Your task to perform on an android device: Do I have any events this weekend? Image 0: 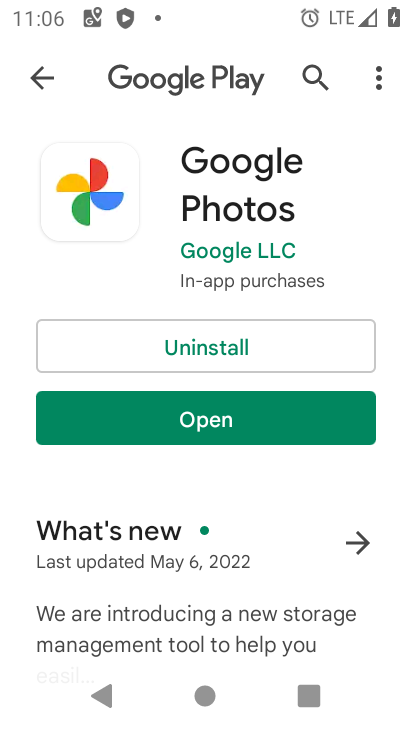
Step 0: press home button
Your task to perform on an android device: Do I have any events this weekend? Image 1: 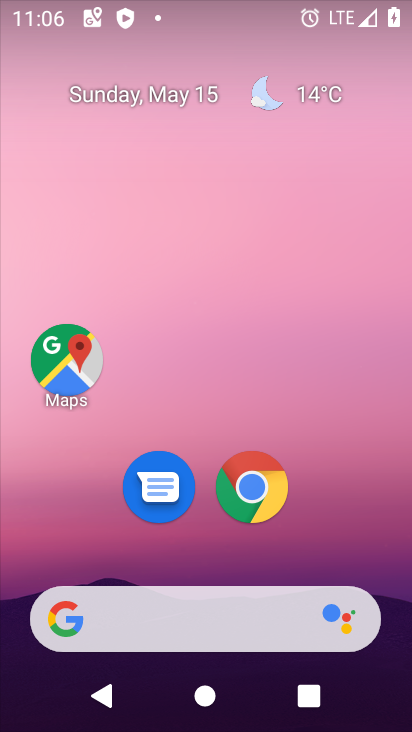
Step 1: drag from (391, 622) to (313, 72)
Your task to perform on an android device: Do I have any events this weekend? Image 2: 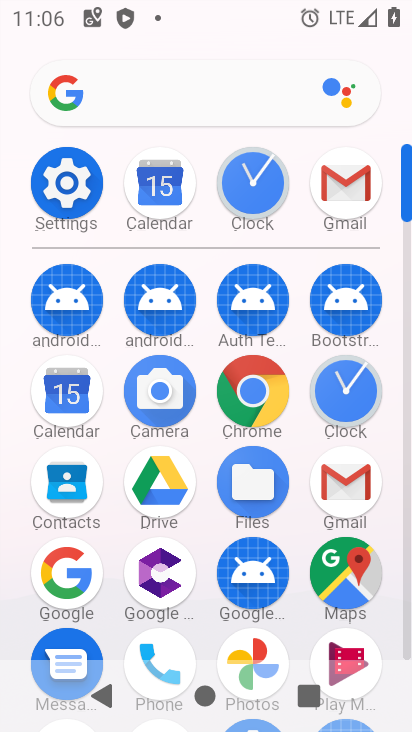
Step 2: click (409, 646)
Your task to perform on an android device: Do I have any events this weekend? Image 3: 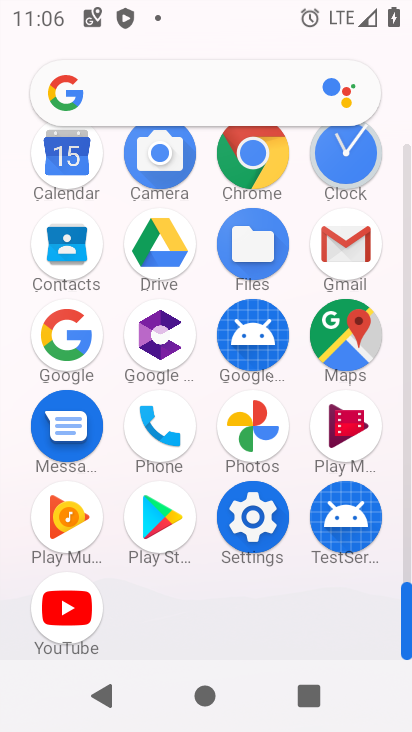
Step 3: click (67, 153)
Your task to perform on an android device: Do I have any events this weekend? Image 4: 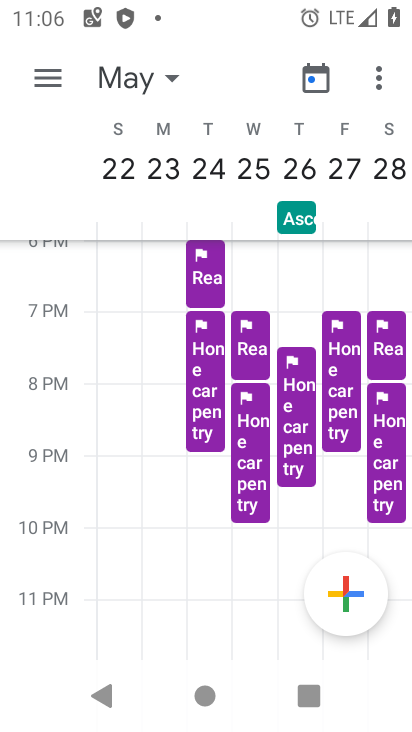
Step 4: click (160, 79)
Your task to perform on an android device: Do I have any events this weekend? Image 5: 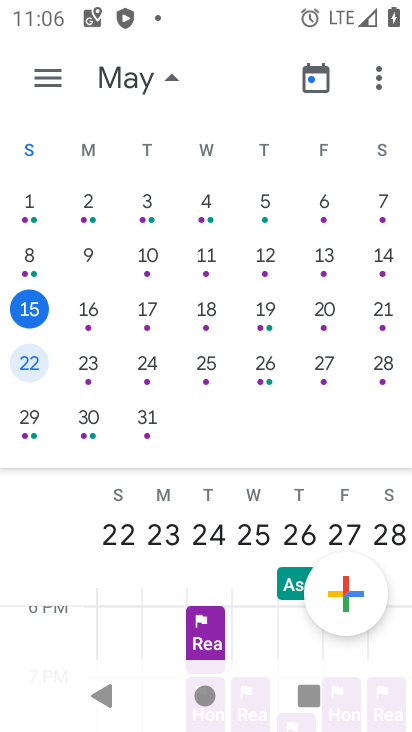
Step 5: click (28, 302)
Your task to perform on an android device: Do I have any events this weekend? Image 6: 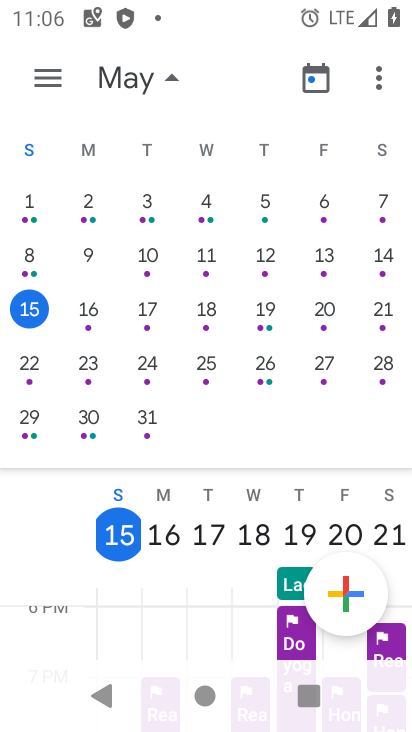
Step 6: task complete